Your task to perform on an android device: turn on showing notifications on the lock screen Image 0: 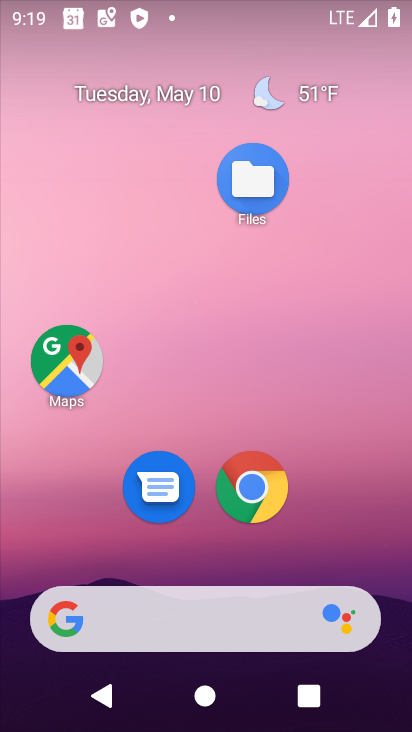
Step 0: drag from (207, 534) to (170, 49)
Your task to perform on an android device: turn on showing notifications on the lock screen Image 1: 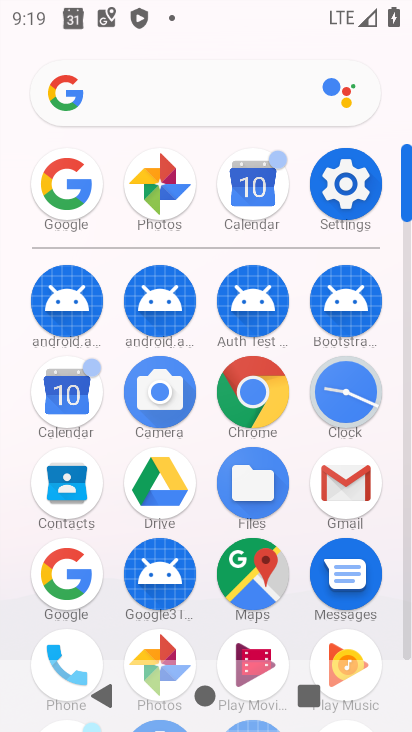
Step 1: click (351, 185)
Your task to perform on an android device: turn on showing notifications on the lock screen Image 2: 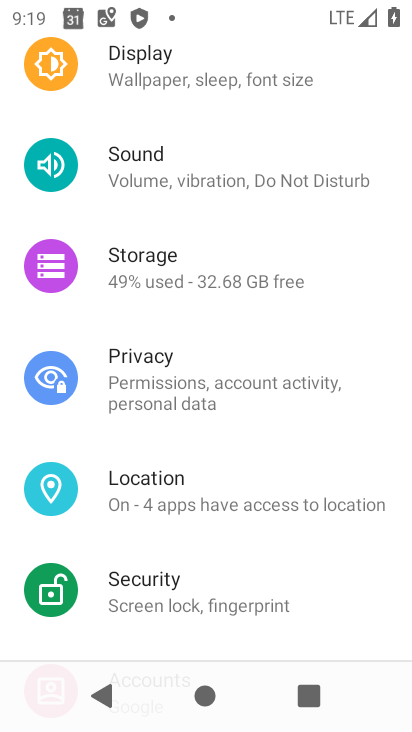
Step 2: drag from (211, 244) to (255, 593)
Your task to perform on an android device: turn on showing notifications on the lock screen Image 3: 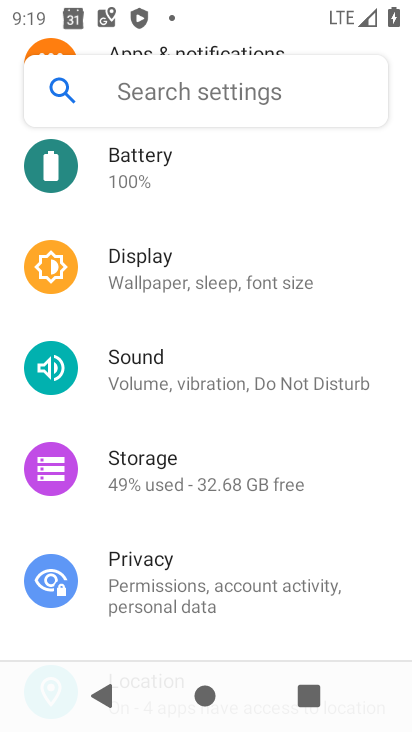
Step 3: drag from (156, 243) to (151, 522)
Your task to perform on an android device: turn on showing notifications on the lock screen Image 4: 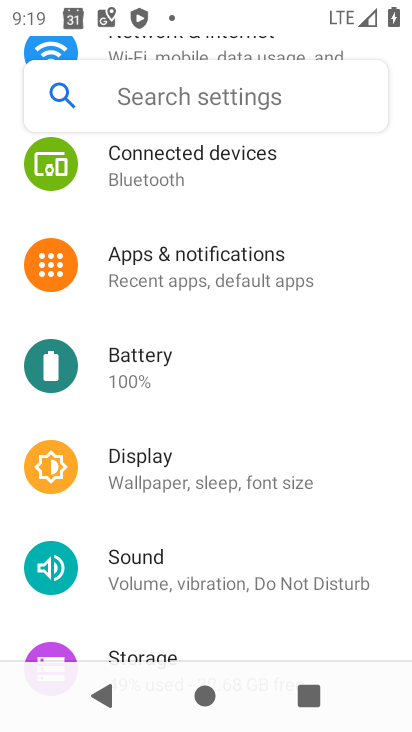
Step 4: click (150, 270)
Your task to perform on an android device: turn on showing notifications on the lock screen Image 5: 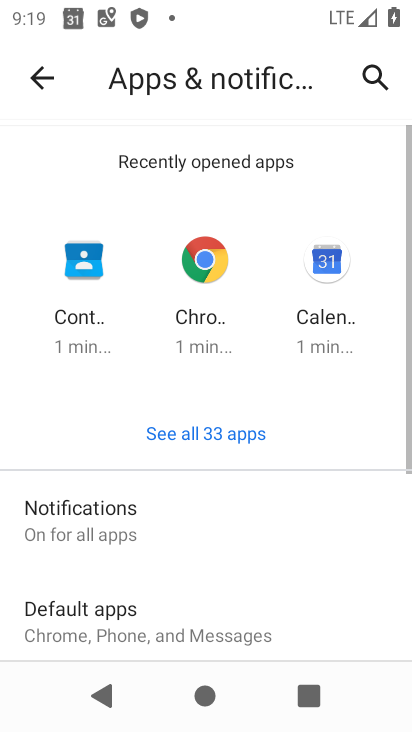
Step 5: click (92, 523)
Your task to perform on an android device: turn on showing notifications on the lock screen Image 6: 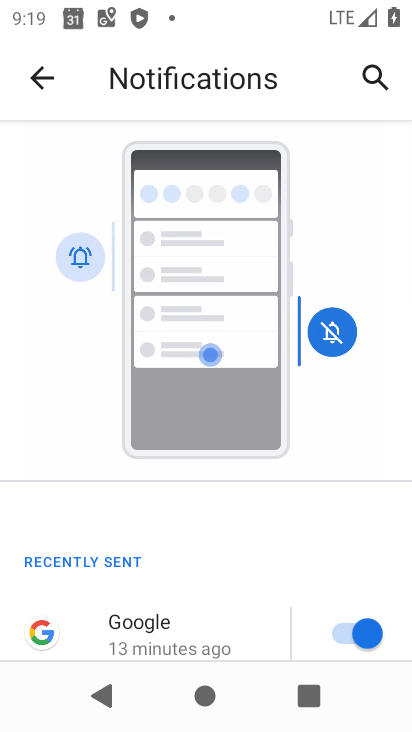
Step 6: drag from (209, 550) to (186, 77)
Your task to perform on an android device: turn on showing notifications on the lock screen Image 7: 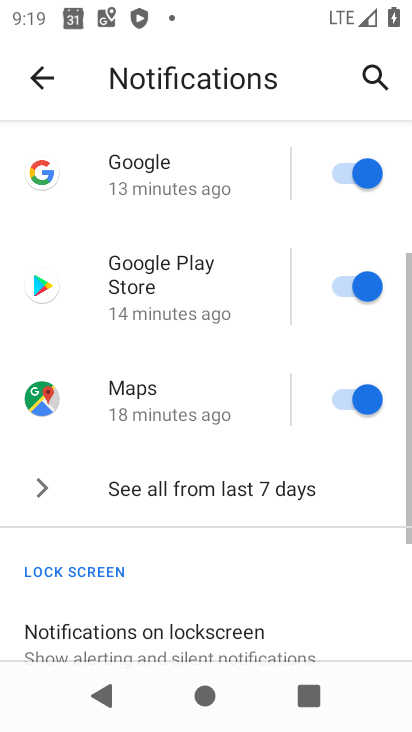
Step 7: drag from (208, 582) to (190, 413)
Your task to perform on an android device: turn on showing notifications on the lock screen Image 8: 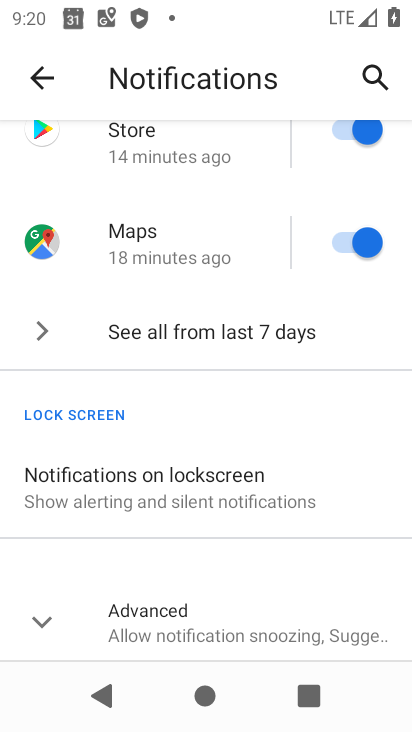
Step 8: click (174, 492)
Your task to perform on an android device: turn on showing notifications on the lock screen Image 9: 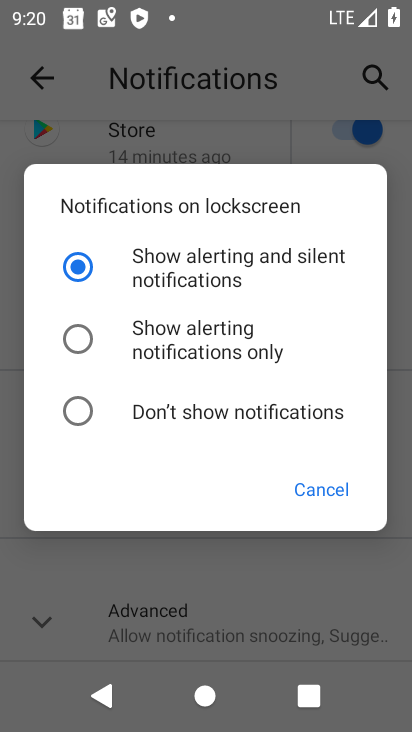
Step 9: task complete